Your task to perform on an android device: change the clock display to digital Image 0: 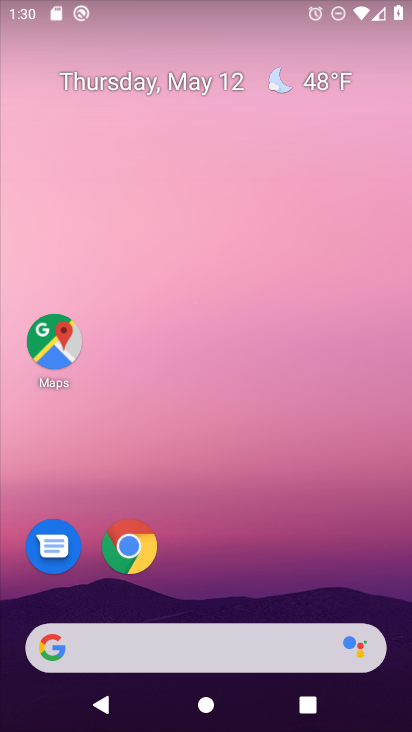
Step 0: drag from (161, 655) to (354, 205)
Your task to perform on an android device: change the clock display to digital Image 1: 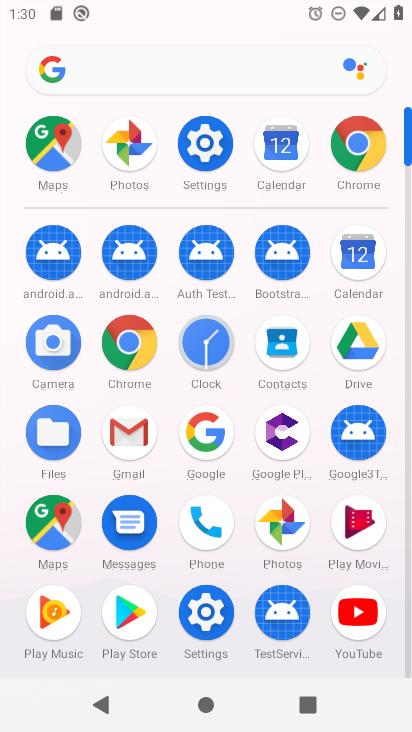
Step 1: click (209, 341)
Your task to perform on an android device: change the clock display to digital Image 2: 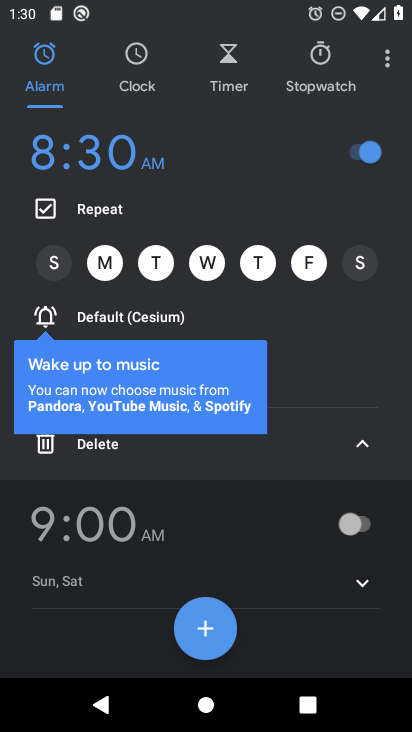
Step 2: click (387, 66)
Your task to perform on an android device: change the clock display to digital Image 3: 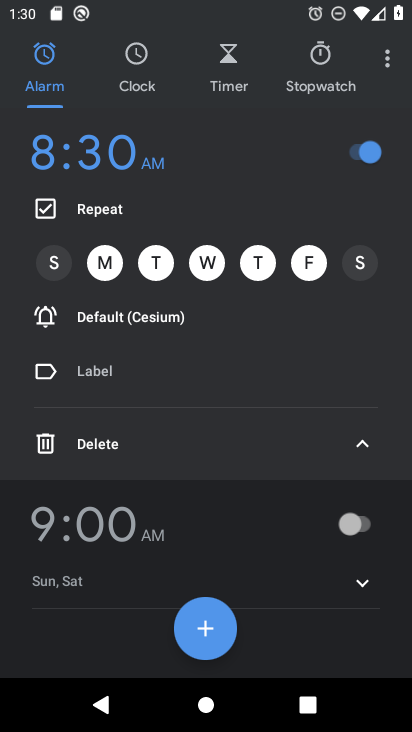
Step 3: click (383, 67)
Your task to perform on an android device: change the clock display to digital Image 4: 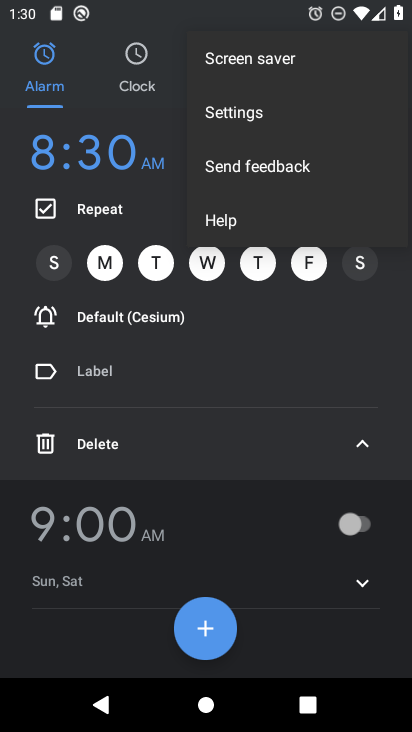
Step 4: click (276, 119)
Your task to perform on an android device: change the clock display to digital Image 5: 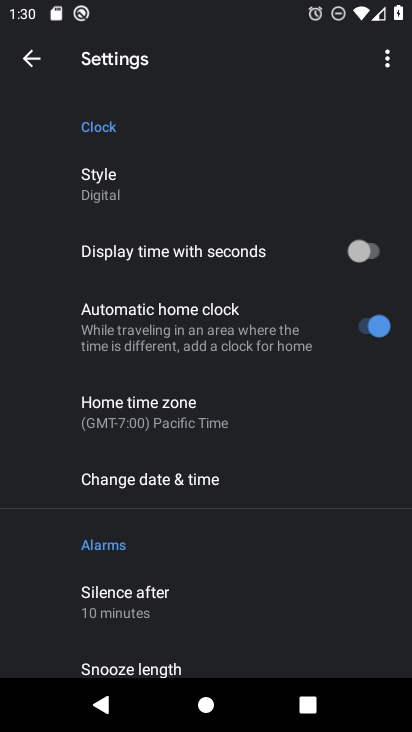
Step 5: task complete